Your task to perform on an android device: turn on the 24-hour format for clock Image 0: 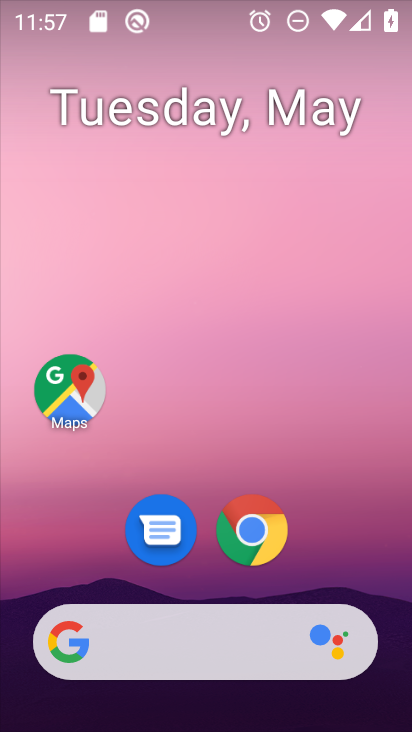
Step 0: drag from (394, 489) to (344, 71)
Your task to perform on an android device: turn on the 24-hour format for clock Image 1: 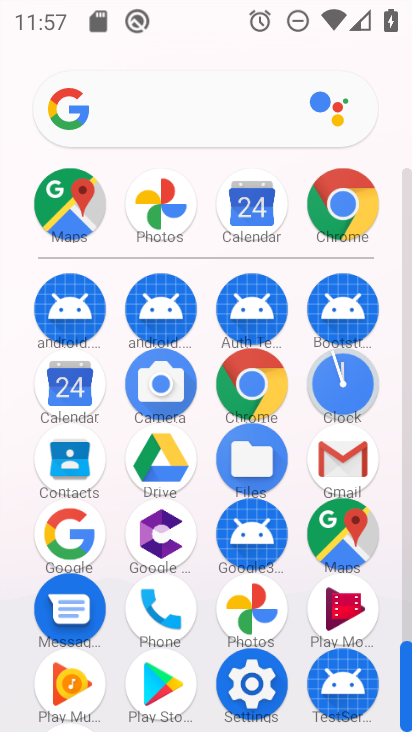
Step 1: click (330, 384)
Your task to perform on an android device: turn on the 24-hour format for clock Image 2: 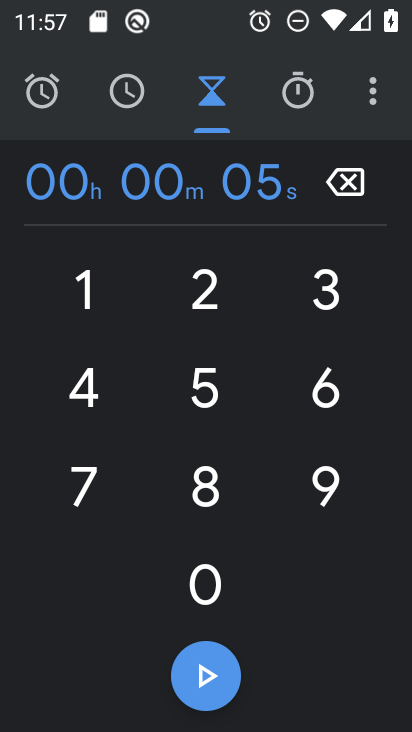
Step 2: press home button
Your task to perform on an android device: turn on the 24-hour format for clock Image 3: 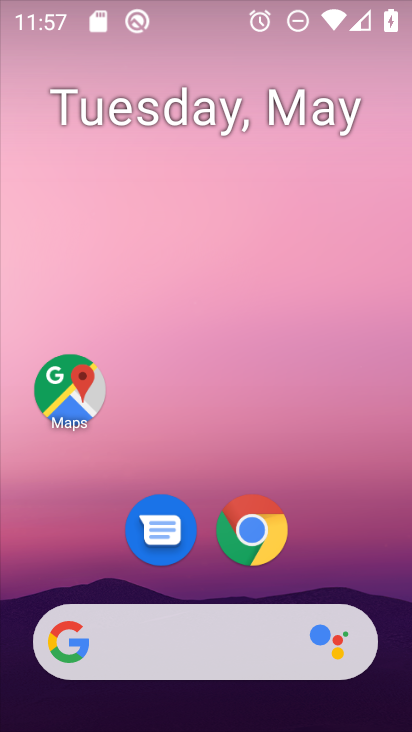
Step 3: drag from (363, 539) to (359, 96)
Your task to perform on an android device: turn on the 24-hour format for clock Image 4: 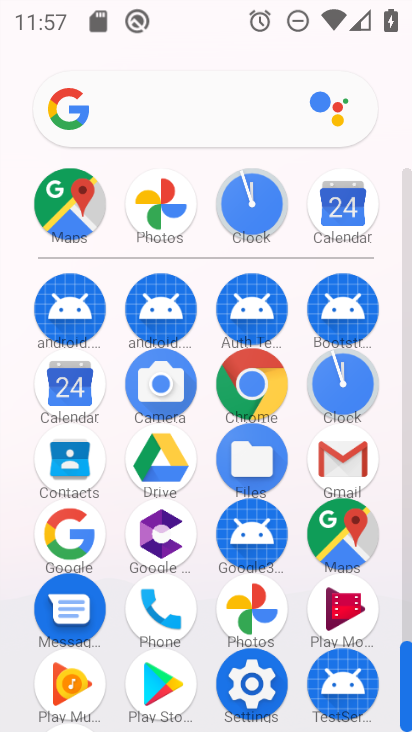
Step 4: click (341, 369)
Your task to perform on an android device: turn on the 24-hour format for clock Image 5: 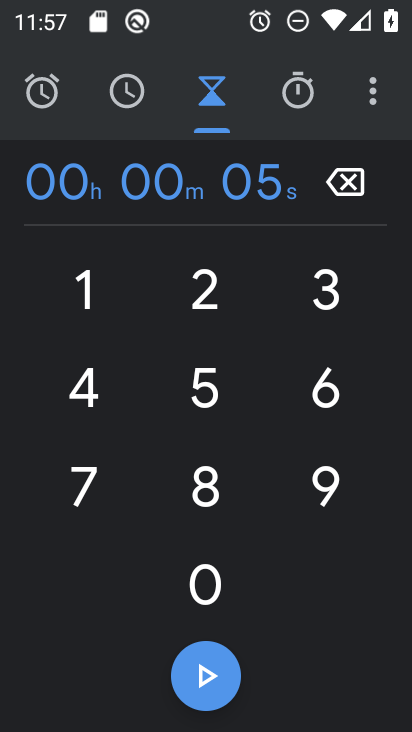
Step 5: drag from (377, 89) to (215, 199)
Your task to perform on an android device: turn on the 24-hour format for clock Image 6: 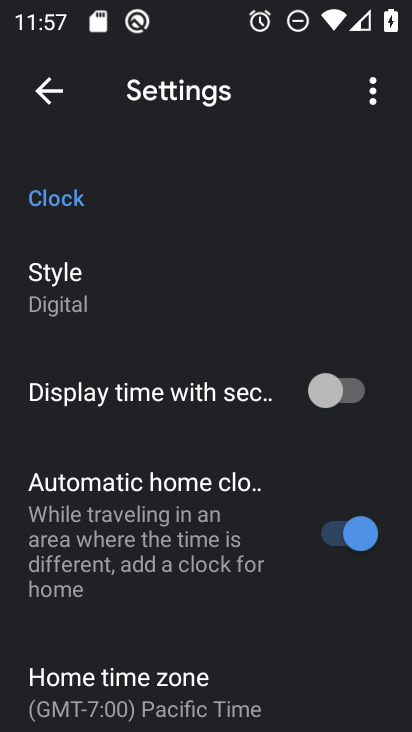
Step 6: drag from (236, 614) to (290, 178)
Your task to perform on an android device: turn on the 24-hour format for clock Image 7: 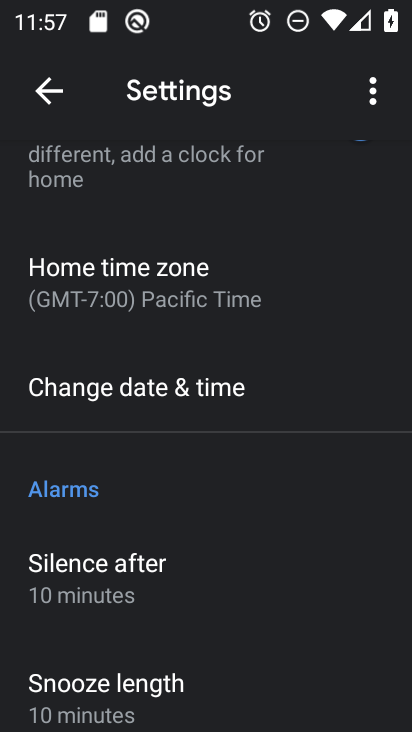
Step 7: click (184, 388)
Your task to perform on an android device: turn on the 24-hour format for clock Image 8: 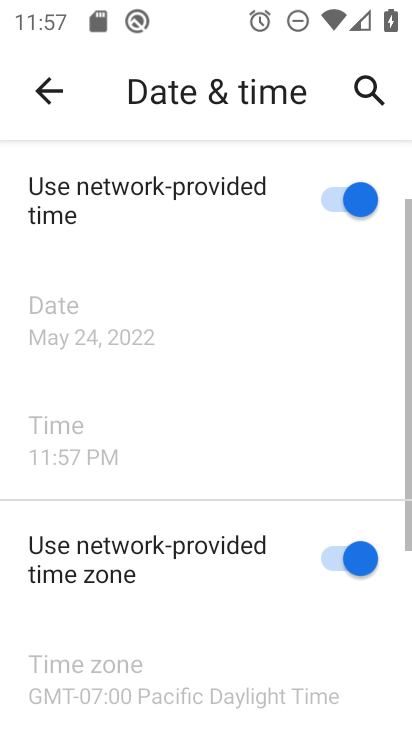
Step 8: drag from (214, 570) to (335, 139)
Your task to perform on an android device: turn on the 24-hour format for clock Image 9: 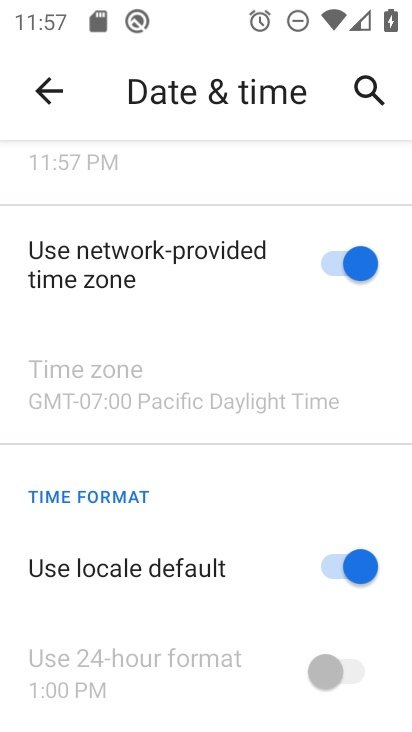
Step 9: click (340, 590)
Your task to perform on an android device: turn on the 24-hour format for clock Image 10: 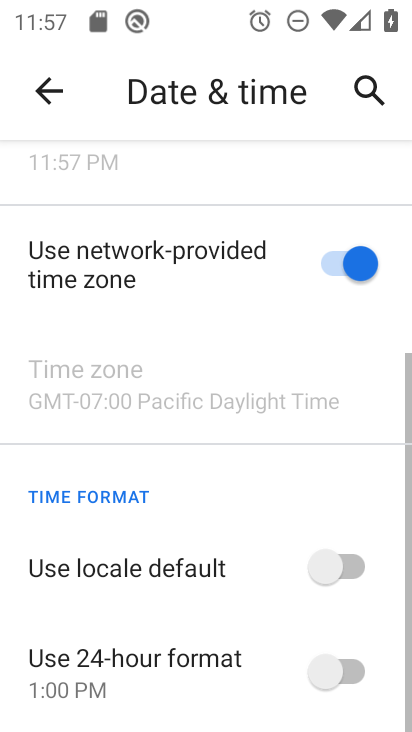
Step 10: click (347, 676)
Your task to perform on an android device: turn on the 24-hour format for clock Image 11: 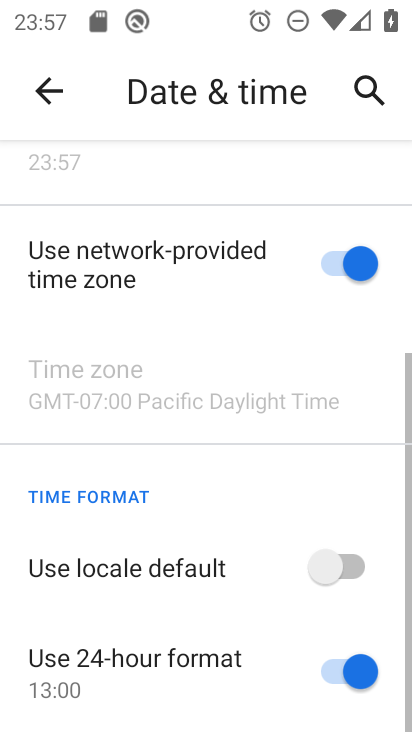
Step 11: task complete